Your task to perform on an android device: toggle translation in the chrome app Image 0: 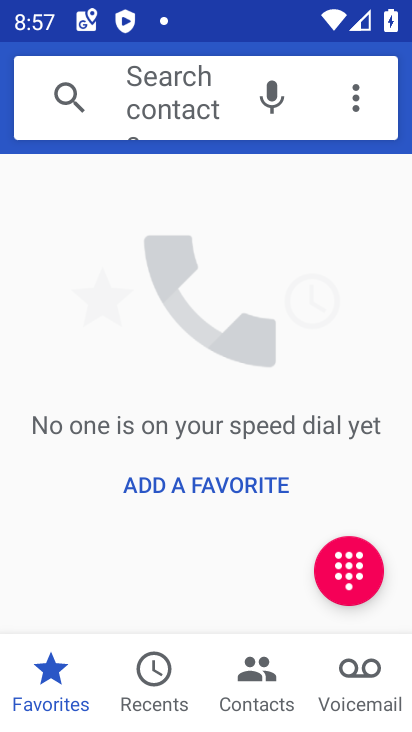
Step 0: press home button
Your task to perform on an android device: toggle translation in the chrome app Image 1: 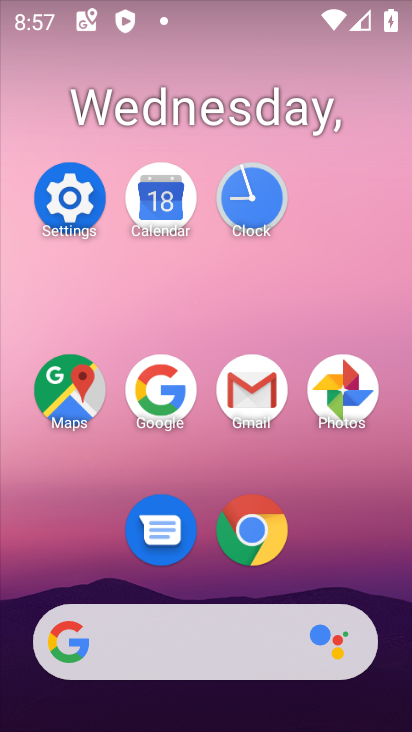
Step 1: click (246, 526)
Your task to perform on an android device: toggle translation in the chrome app Image 2: 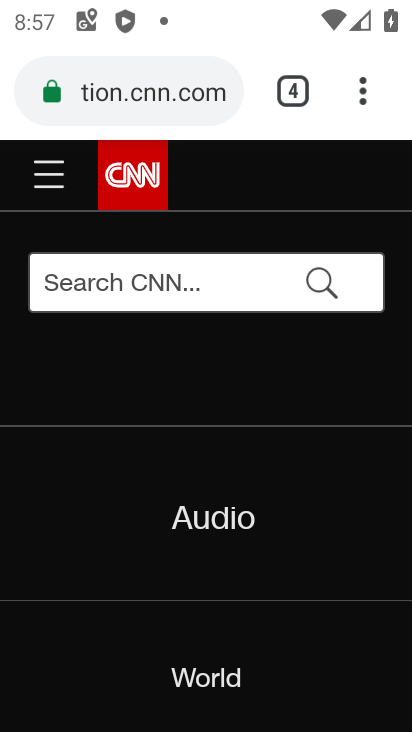
Step 2: click (363, 91)
Your task to perform on an android device: toggle translation in the chrome app Image 3: 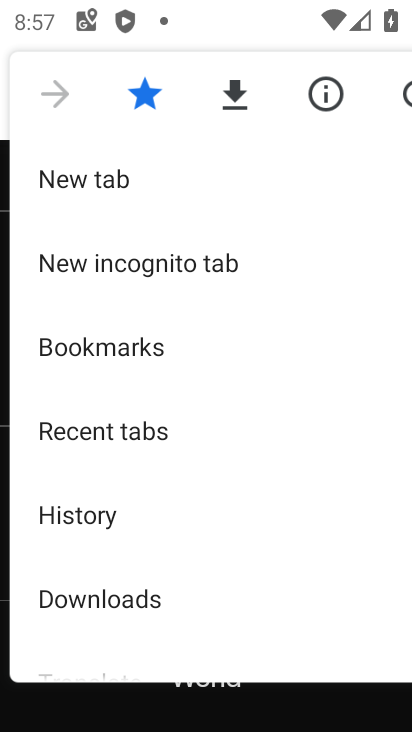
Step 3: drag from (210, 511) to (268, 172)
Your task to perform on an android device: toggle translation in the chrome app Image 4: 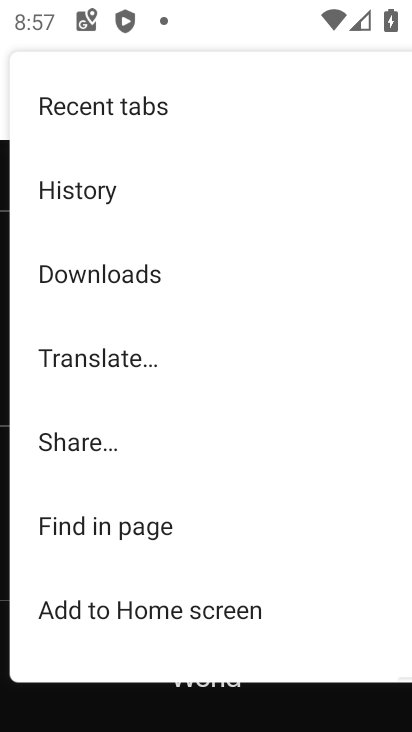
Step 4: drag from (239, 493) to (277, 201)
Your task to perform on an android device: toggle translation in the chrome app Image 5: 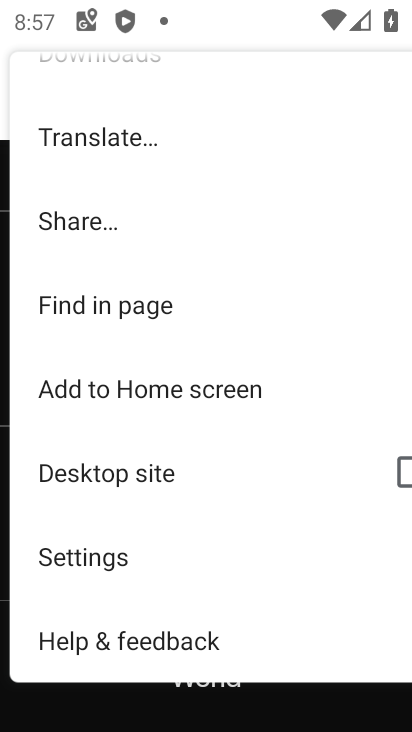
Step 5: click (195, 547)
Your task to perform on an android device: toggle translation in the chrome app Image 6: 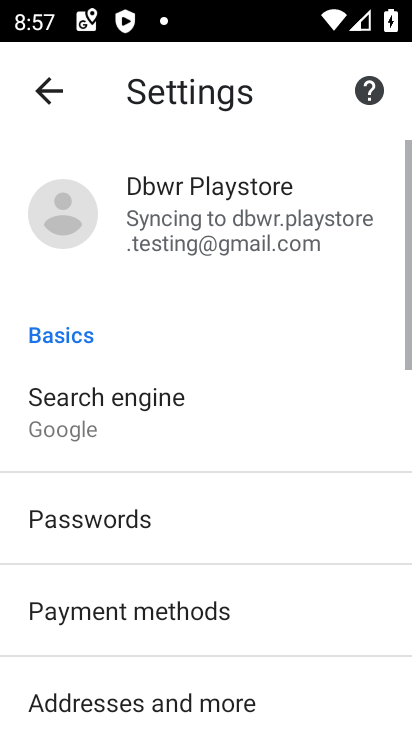
Step 6: drag from (190, 540) to (217, 163)
Your task to perform on an android device: toggle translation in the chrome app Image 7: 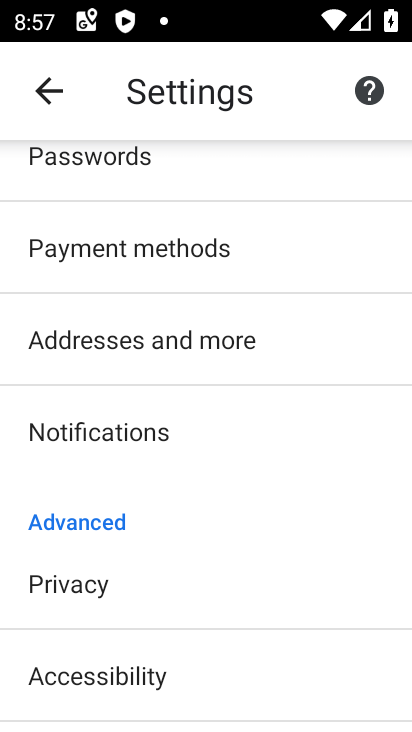
Step 7: drag from (199, 626) to (199, 261)
Your task to perform on an android device: toggle translation in the chrome app Image 8: 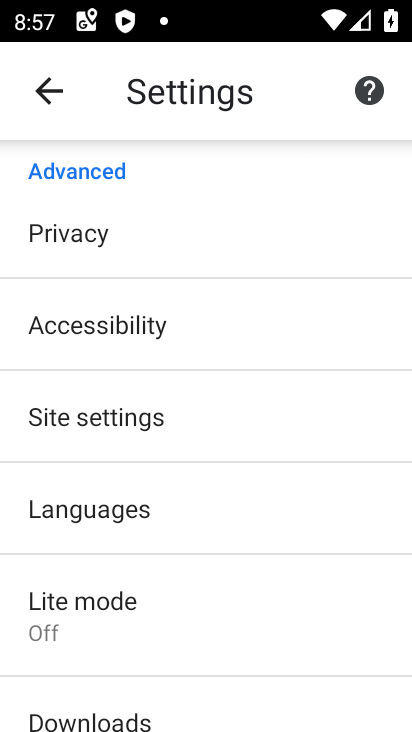
Step 8: click (197, 553)
Your task to perform on an android device: toggle translation in the chrome app Image 9: 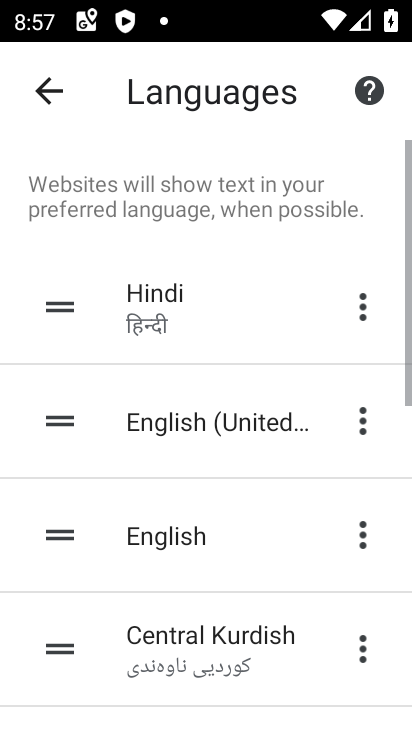
Step 9: drag from (197, 553) to (247, 178)
Your task to perform on an android device: toggle translation in the chrome app Image 10: 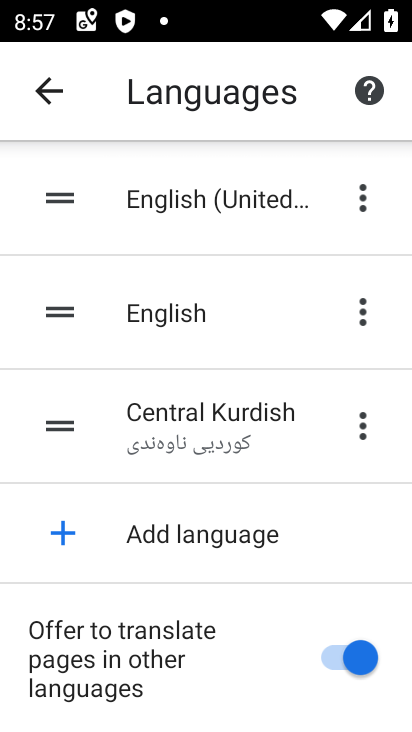
Step 10: click (338, 653)
Your task to perform on an android device: toggle translation in the chrome app Image 11: 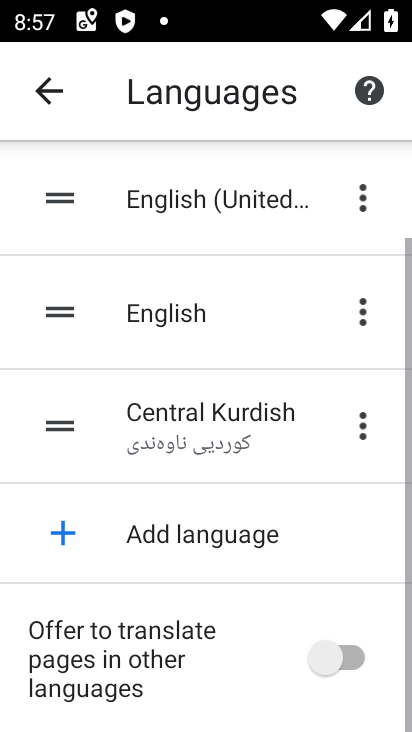
Step 11: task complete